Your task to perform on an android device: turn on data saver in the chrome app Image 0: 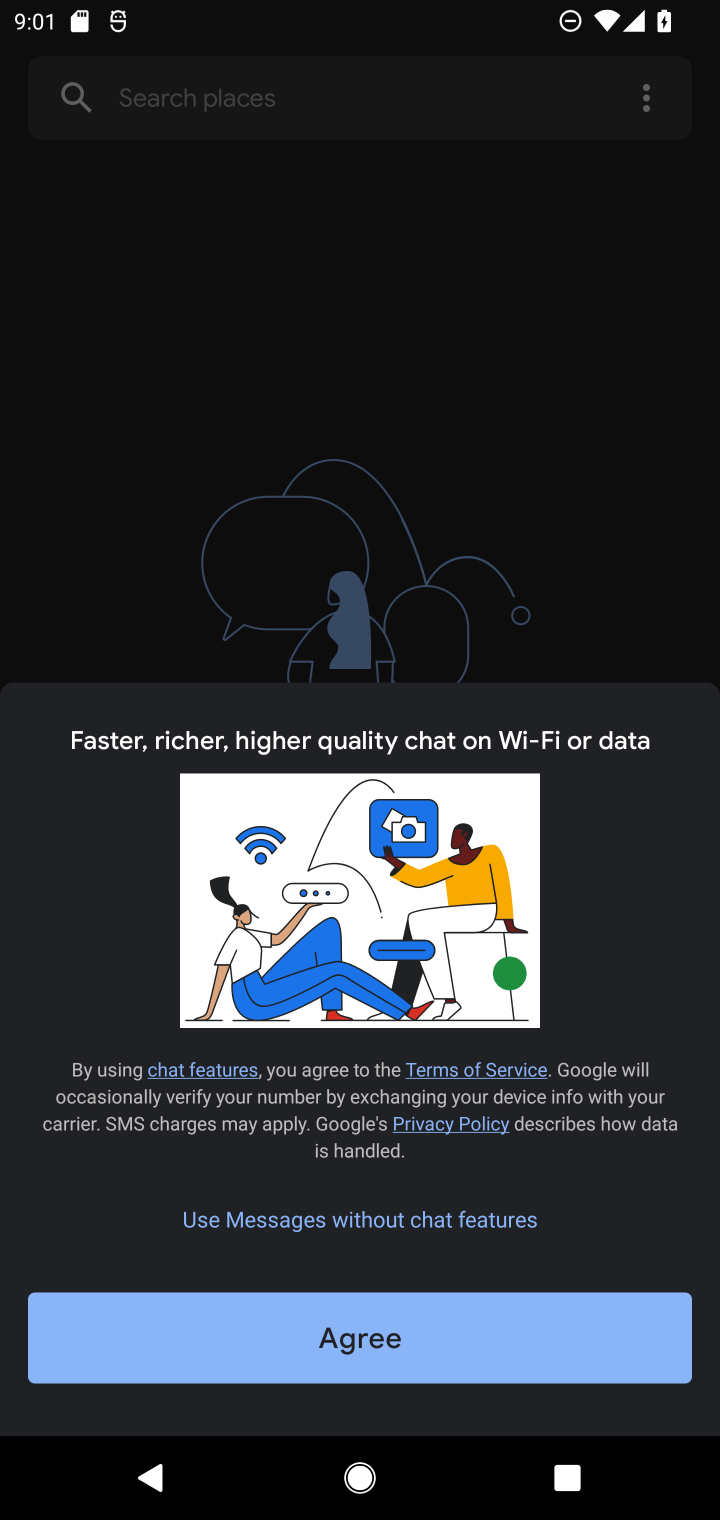
Step 0: press home button
Your task to perform on an android device: turn on data saver in the chrome app Image 1: 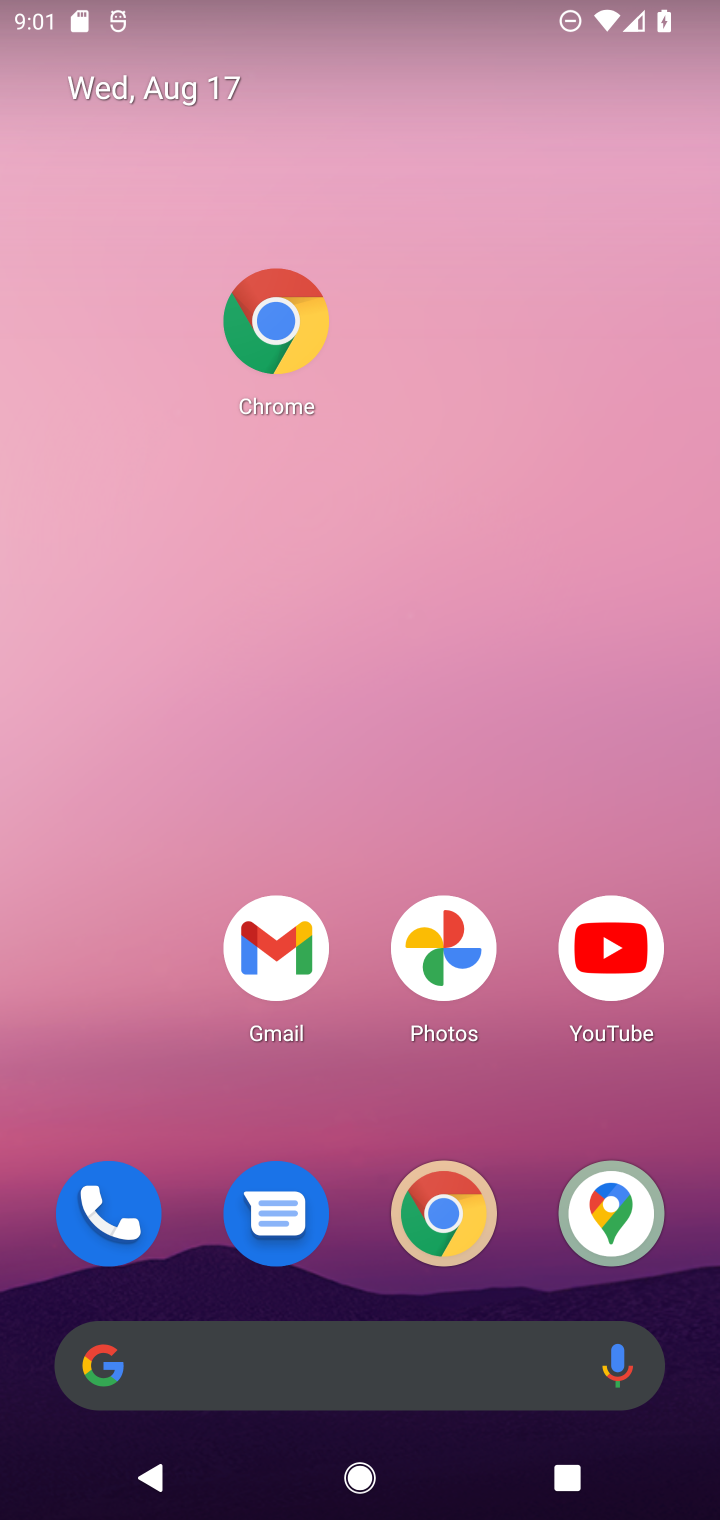
Step 1: click (440, 1243)
Your task to perform on an android device: turn on data saver in the chrome app Image 2: 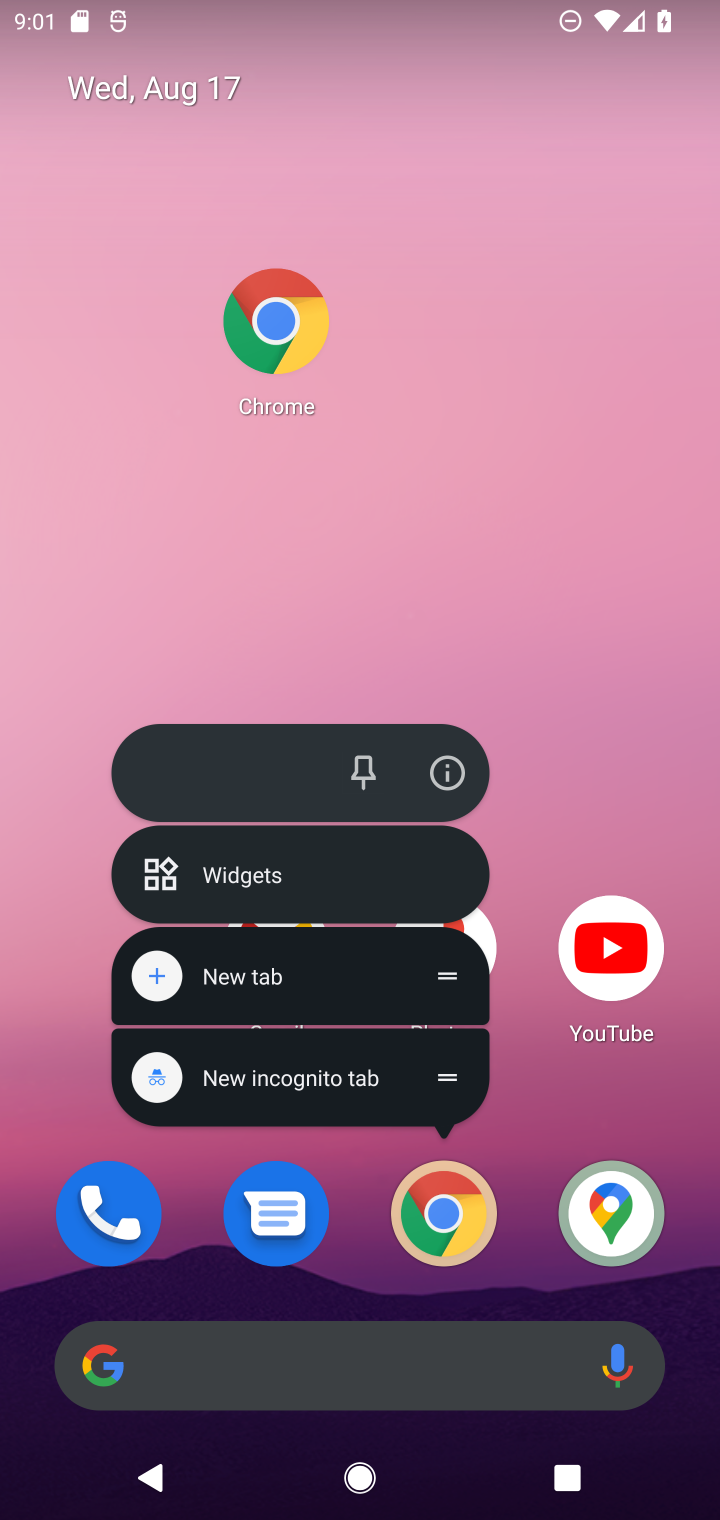
Step 2: click (458, 1257)
Your task to perform on an android device: turn on data saver in the chrome app Image 3: 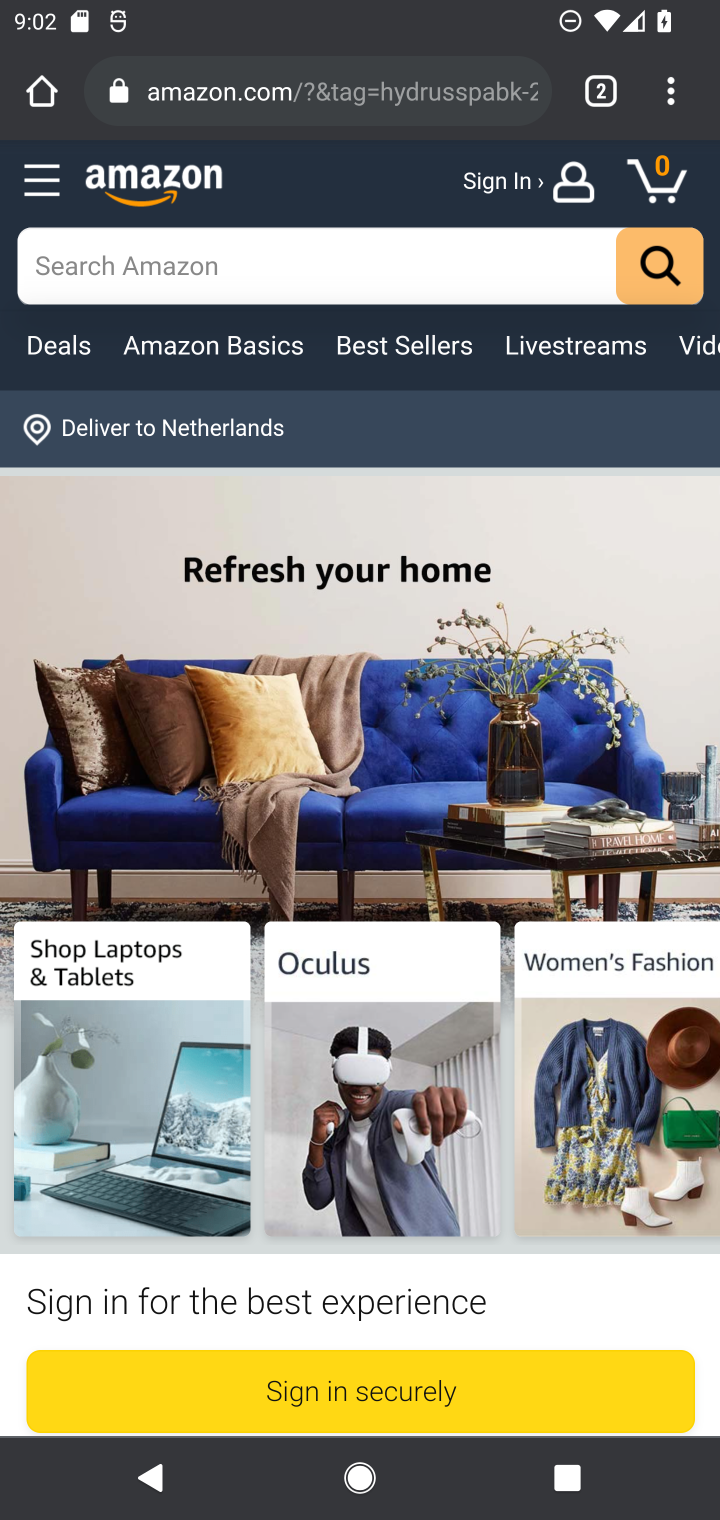
Step 3: click (672, 83)
Your task to perform on an android device: turn on data saver in the chrome app Image 4: 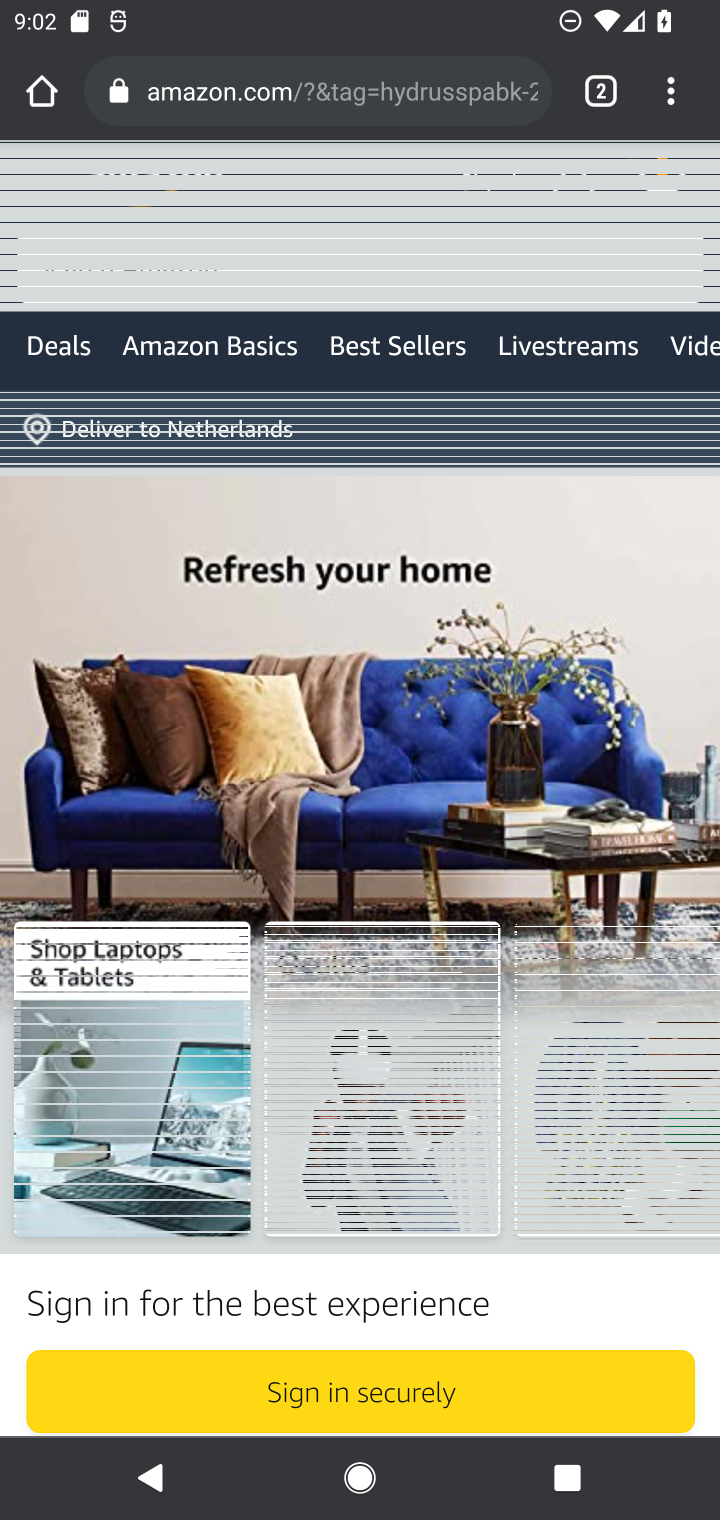
Step 4: click (678, 88)
Your task to perform on an android device: turn on data saver in the chrome app Image 5: 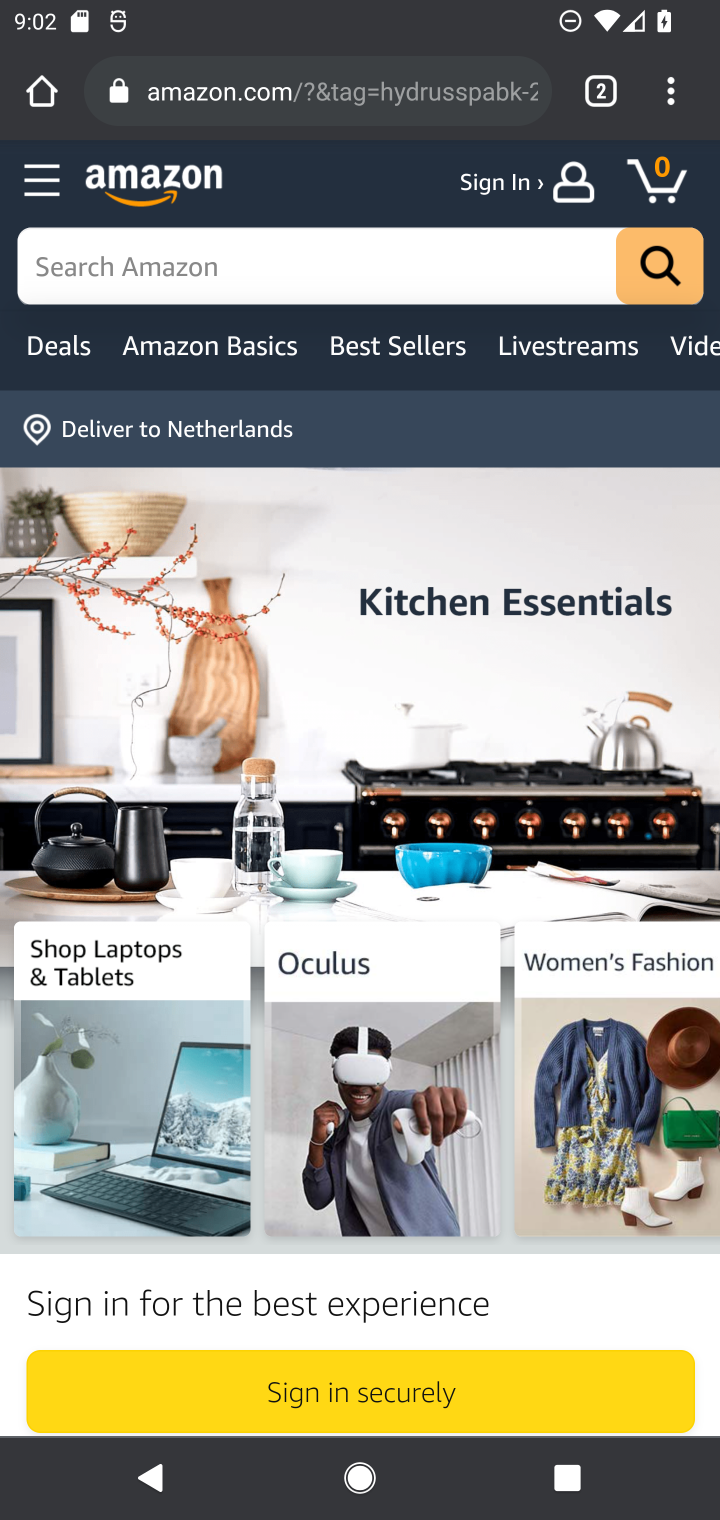
Step 5: task complete